Your task to perform on an android device: all mails in gmail Image 0: 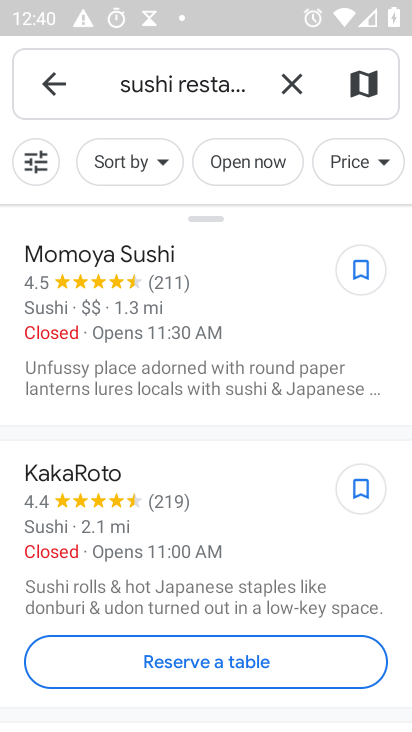
Step 0: press home button
Your task to perform on an android device: all mails in gmail Image 1: 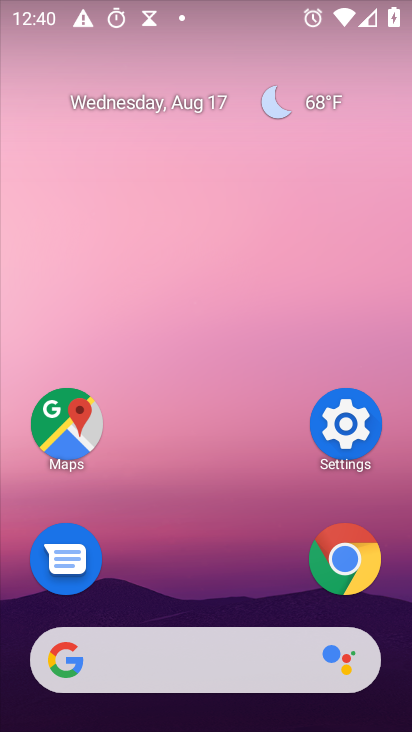
Step 1: drag from (193, 594) to (336, 30)
Your task to perform on an android device: all mails in gmail Image 2: 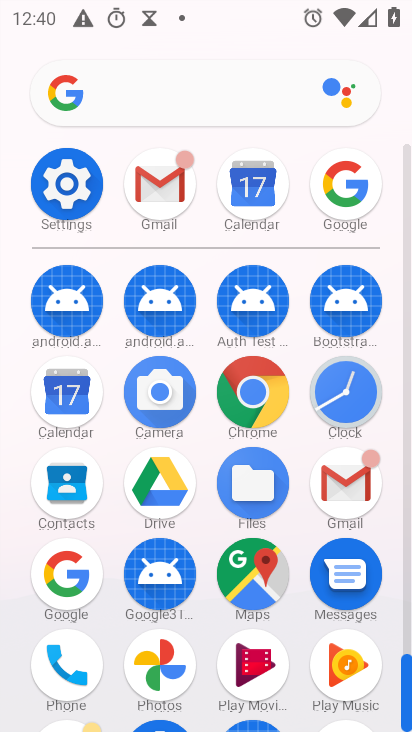
Step 2: click (167, 187)
Your task to perform on an android device: all mails in gmail Image 3: 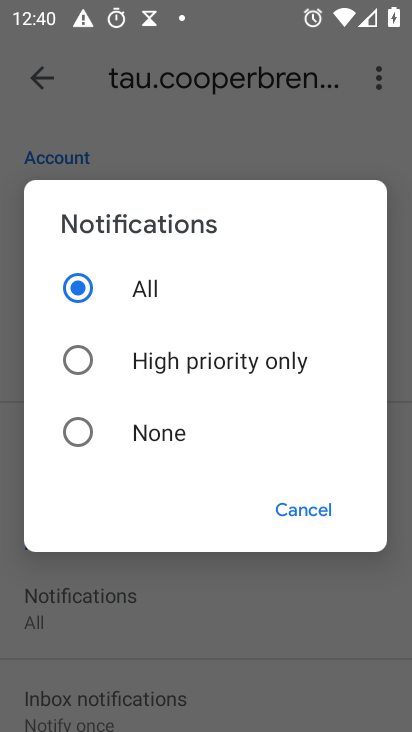
Step 3: click (317, 516)
Your task to perform on an android device: all mails in gmail Image 4: 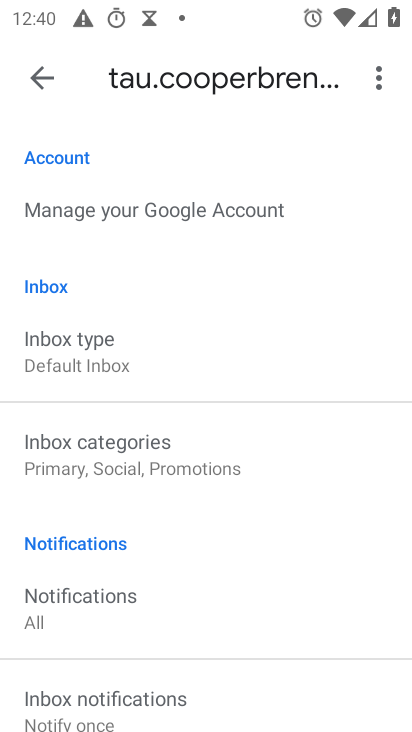
Step 4: press back button
Your task to perform on an android device: all mails in gmail Image 5: 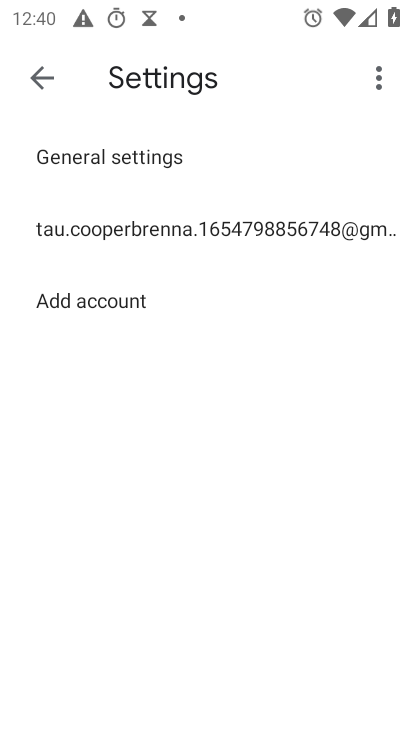
Step 5: press back button
Your task to perform on an android device: all mails in gmail Image 6: 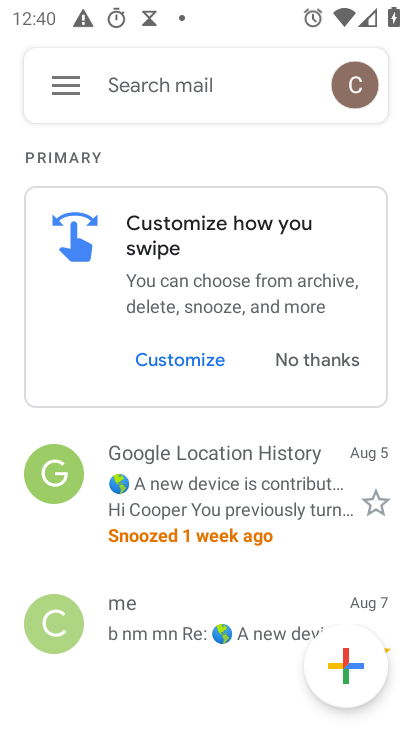
Step 6: click (55, 87)
Your task to perform on an android device: all mails in gmail Image 7: 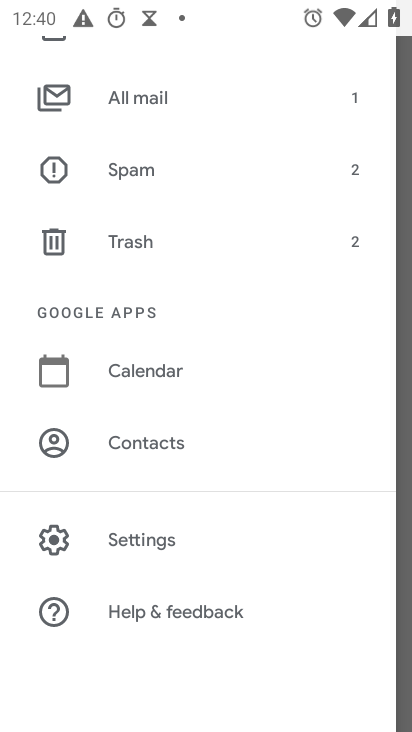
Step 7: click (154, 92)
Your task to perform on an android device: all mails in gmail Image 8: 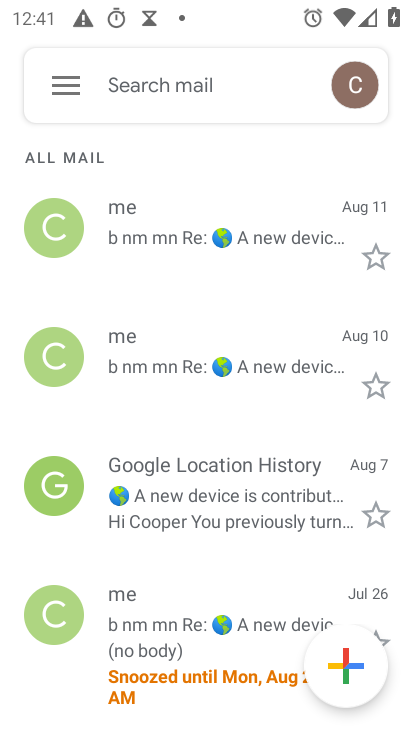
Step 8: task complete